Your task to perform on an android device: clear history in the chrome app Image 0: 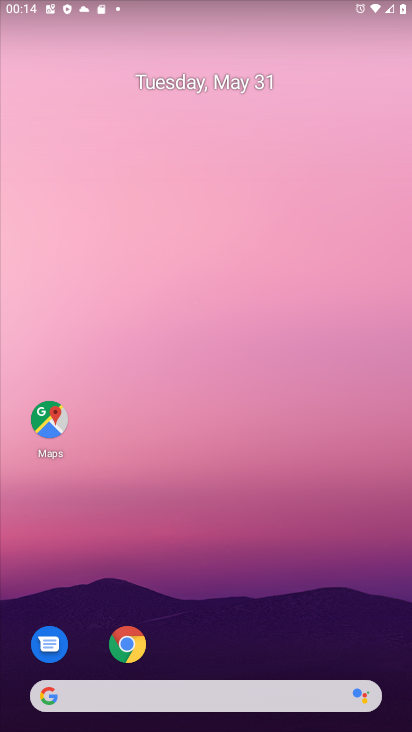
Step 0: click (129, 644)
Your task to perform on an android device: clear history in the chrome app Image 1: 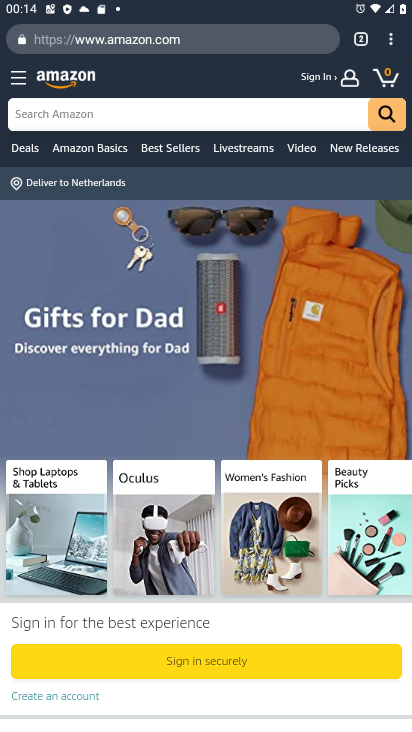
Step 1: click (390, 42)
Your task to perform on an android device: clear history in the chrome app Image 2: 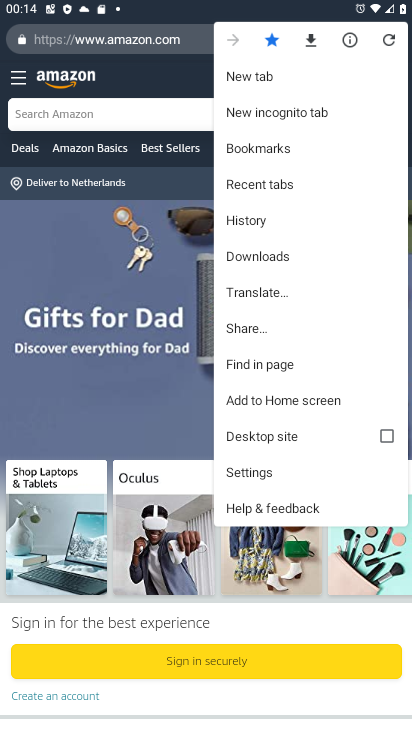
Step 2: click (241, 219)
Your task to perform on an android device: clear history in the chrome app Image 3: 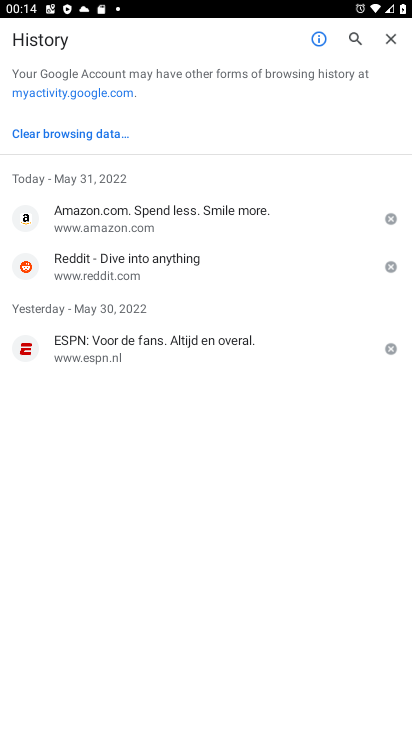
Step 3: click (59, 141)
Your task to perform on an android device: clear history in the chrome app Image 4: 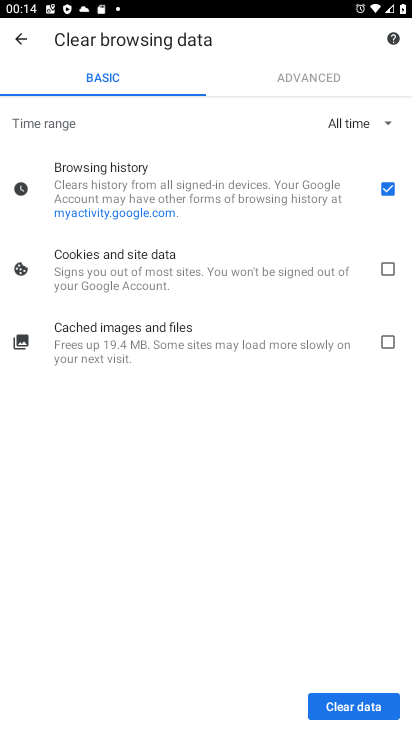
Step 4: click (357, 705)
Your task to perform on an android device: clear history in the chrome app Image 5: 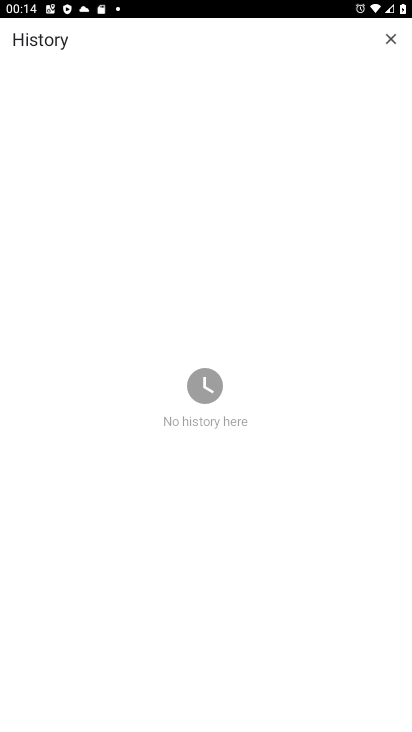
Step 5: task complete